Your task to perform on an android device: Open location settings Image 0: 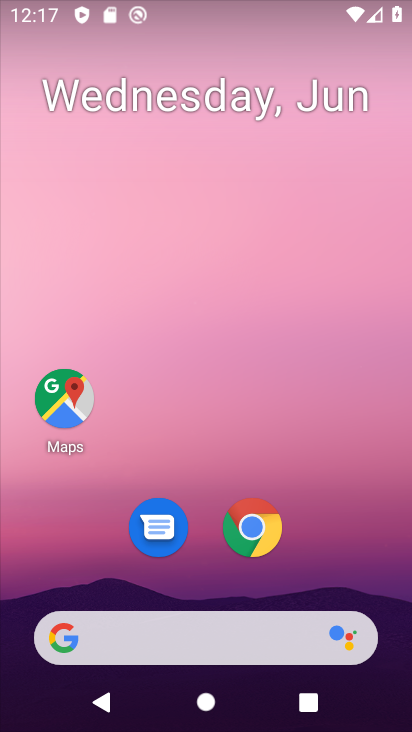
Step 0: drag from (176, 629) to (160, 18)
Your task to perform on an android device: Open location settings Image 1: 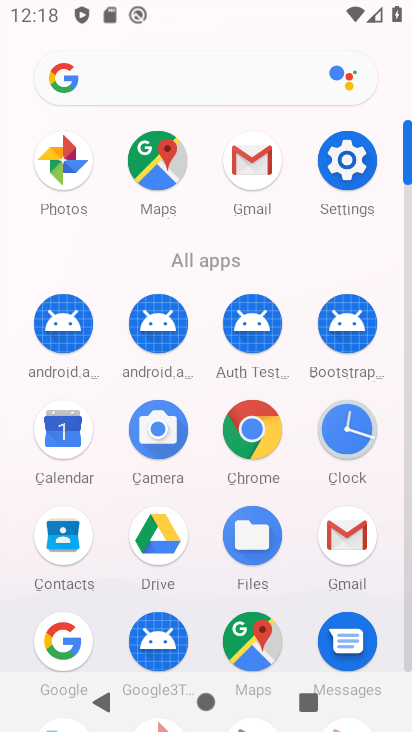
Step 1: click (327, 167)
Your task to perform on an android device: Open location settings Image 2: 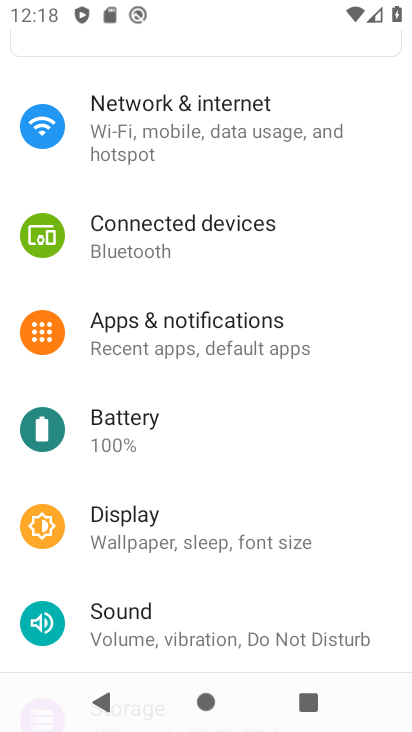
Step 2: drag from (144, 577) to (183, 152)
Your task to perform on an android device: Open location settings Image 3: 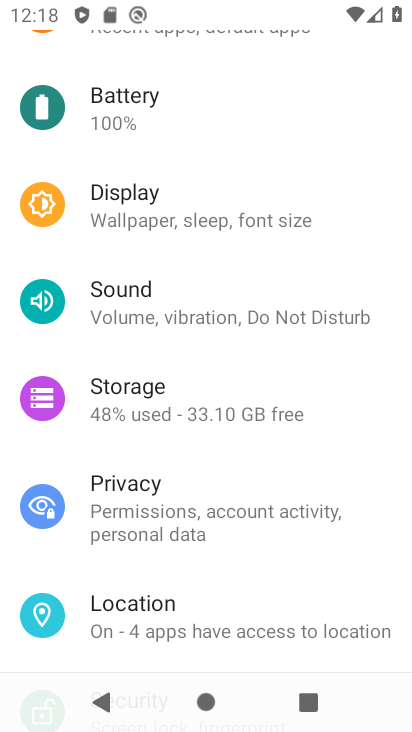
Step 3: click (149, 610)
Your task to perform on an android device: Open location settings Image 4: 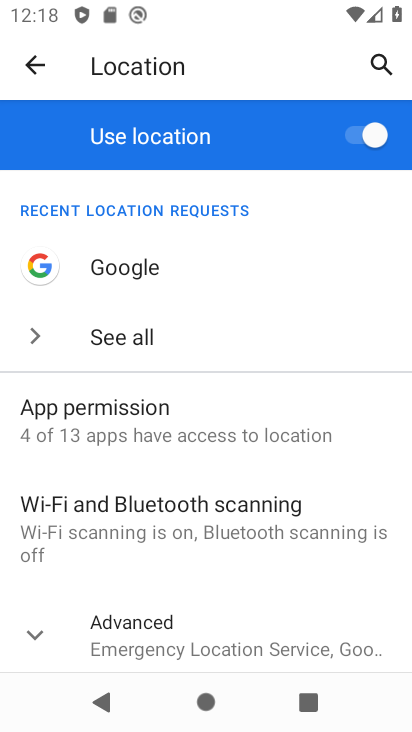
Step 4: task complete